Your task to perform on an android device: uninstall "Skype" Image 0: 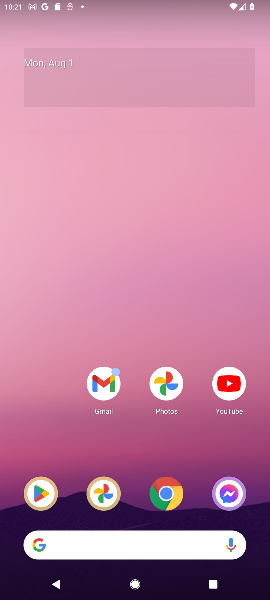
Step 0: drag from (70, 519) to (69, 142)
Your task to perform on an android device: uninstall "Skype" Image 1: 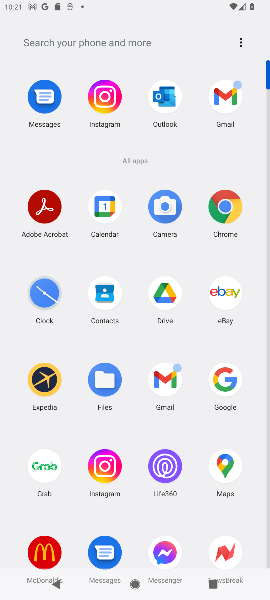
Step 1: click (132, 32)
Your task to perform on an android device: uninstall "Skype" Image 2: 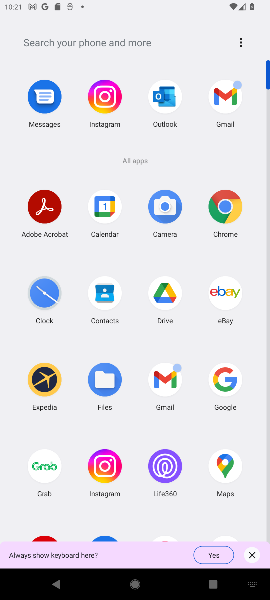
Step 2: type "skpye"
Your task to perform on an android device: uninstall "Skype" Image 3: 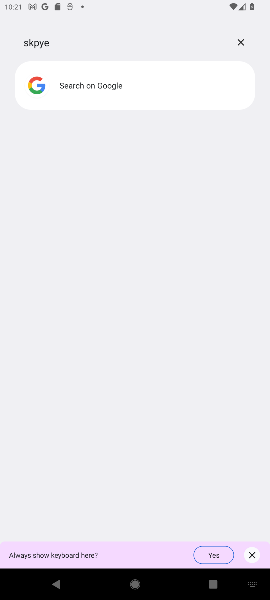
Step 3: task complete